Your task to perform on an android device: open wifi settings Image 0: 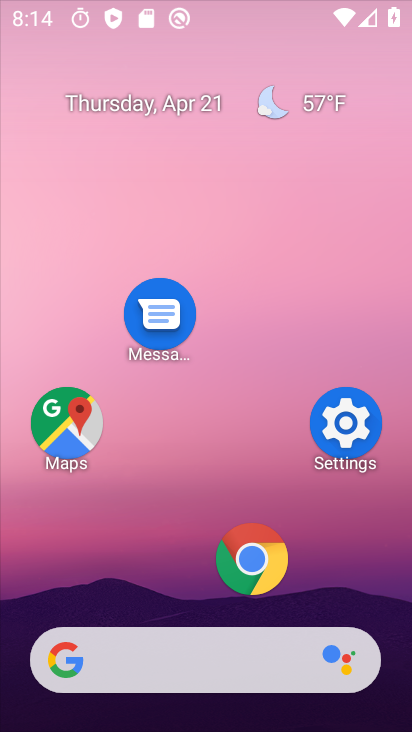
Step 0: drag from (203, 269) to (166, 8)
Your task to perform on an android device: open wifi settings Image 1: 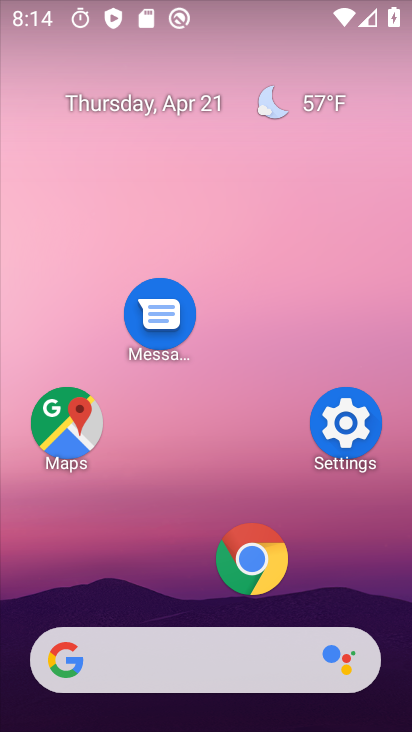
Step 1: drag from (337, 714) to (159, 75)
Your task to perform on an android device: open wifi settings Image 2: 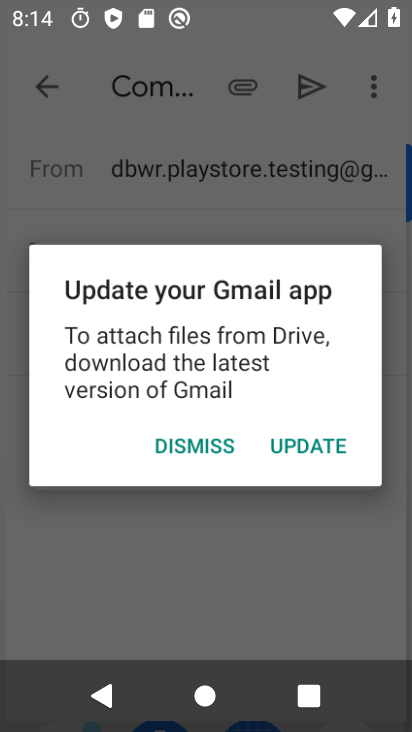
Step 2: click (341, 196)
Your task to perform on an android device: open wifi settings Image 3: 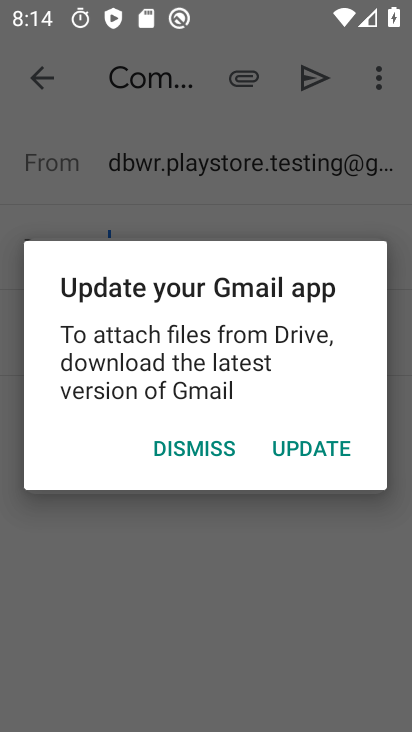
Step 3: click (175, 438)
Your task to perform on an android device: open wifi settings Image 4: 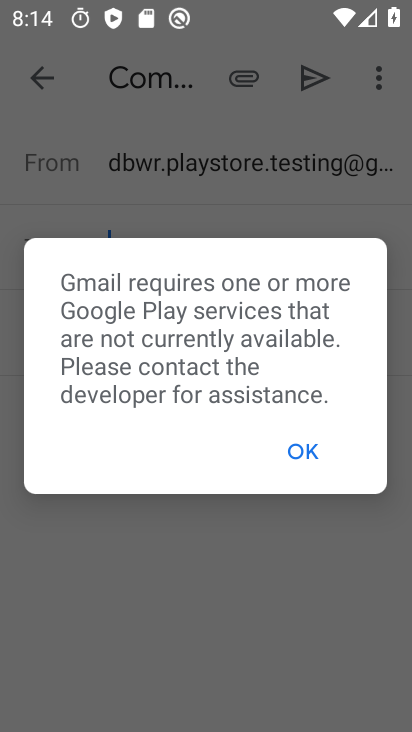
Step 4: click (293, 453)
Your task to perform on an android device: open wifi settings Image 5: 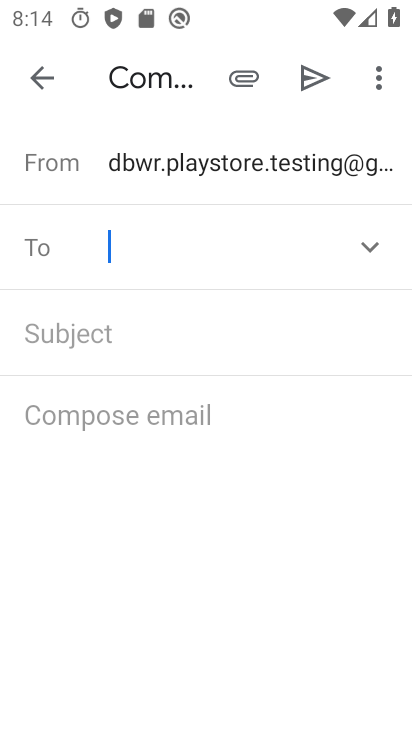
Step 5: click (41, 80)
Your task to perform on an android device: open wifi settings Image 6: 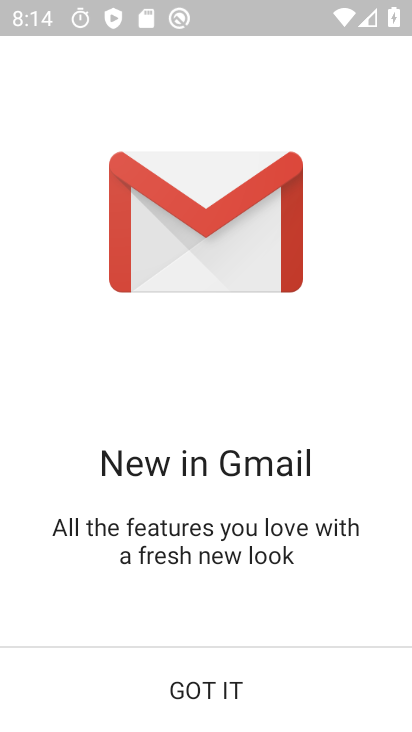
Step 6: click (213, 690)
Your task to perform on an android device: open wifi settings Image 7: 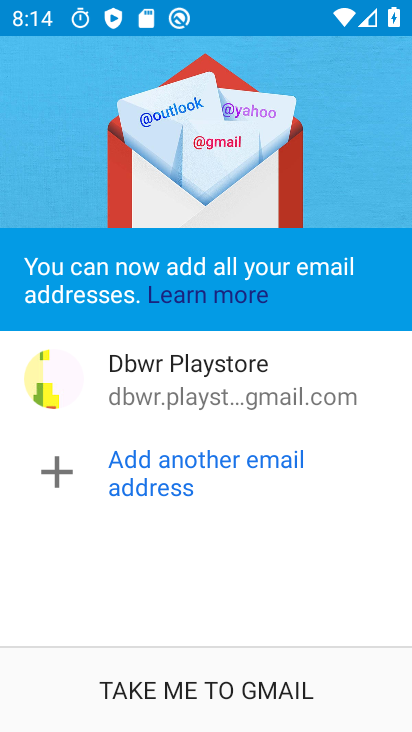
Step 7: click (216, 686)
Your task to perform on an android device: open wifi settings Image 8: 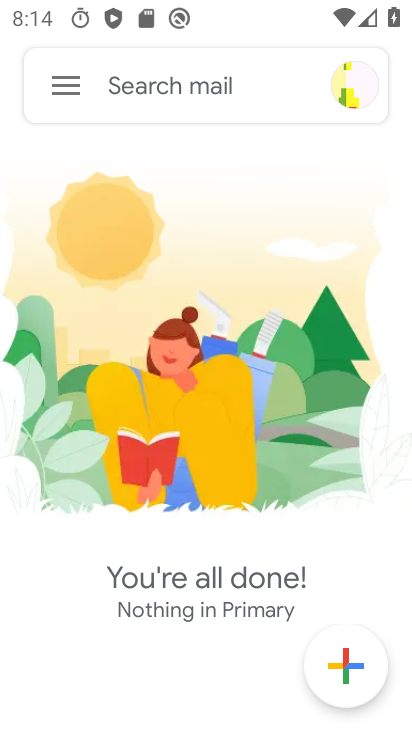
Step 8: press home button
Your task to perform on an android device: open wifi settings Image 9: 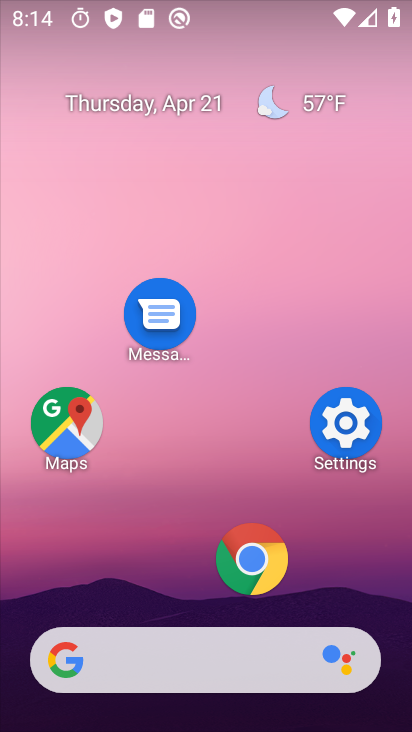
Step 9: drag from (238, 616) to (185, 220)
Your task to perform on an android device: open wifi settings Image 10: 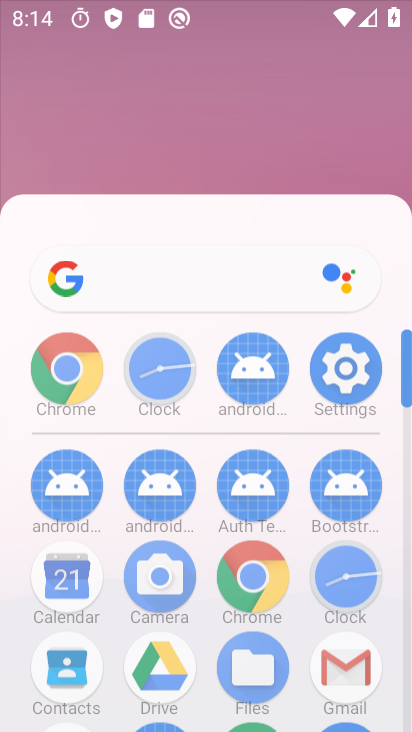
Step 10: drag from (205, 294) to (171, 55)
Your task to perform on an android device: open wifi settings Image 11: 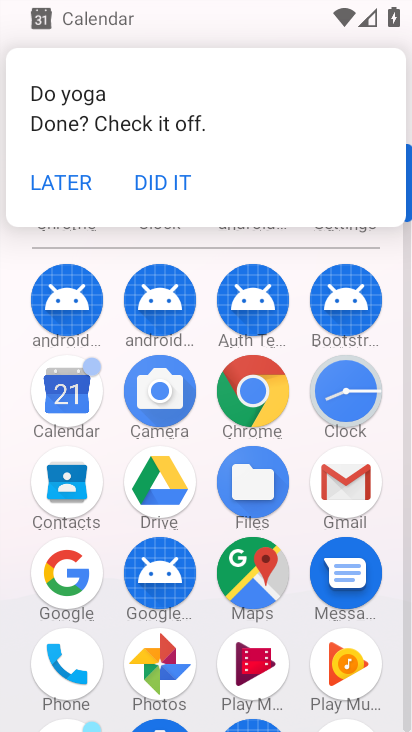
Step 11: click (398, 293)
Your task to perform on an android device: open wifi settings Image 12: 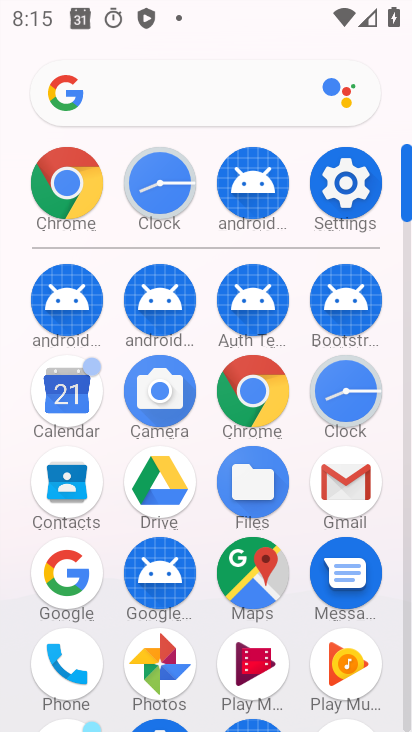
Step 12: click (342, 188)
Your task to perform on an android device: open wifi settings Image 13: 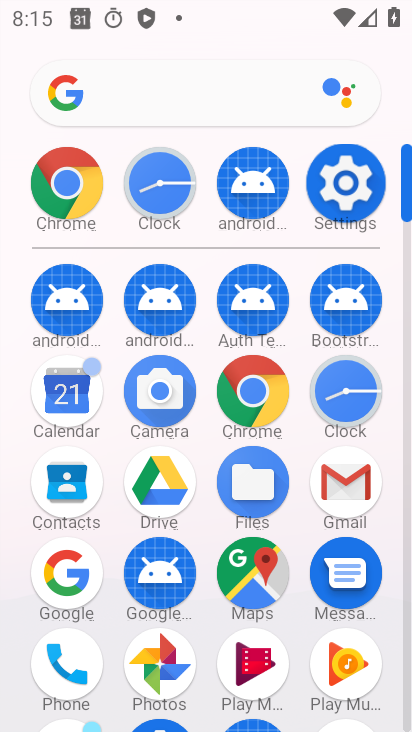
Step 13: click (344, 187)
Your task to perform on an android device: open wifi settings Image 14: 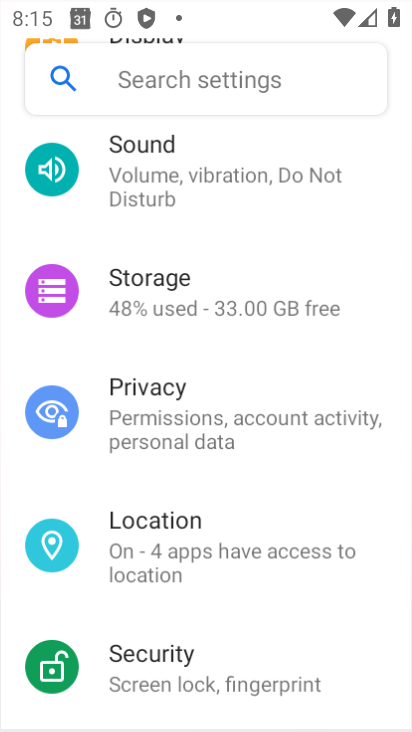
Step 14: click (339, 197)
Your task to perform on an android device: open wifi settings Image 15: 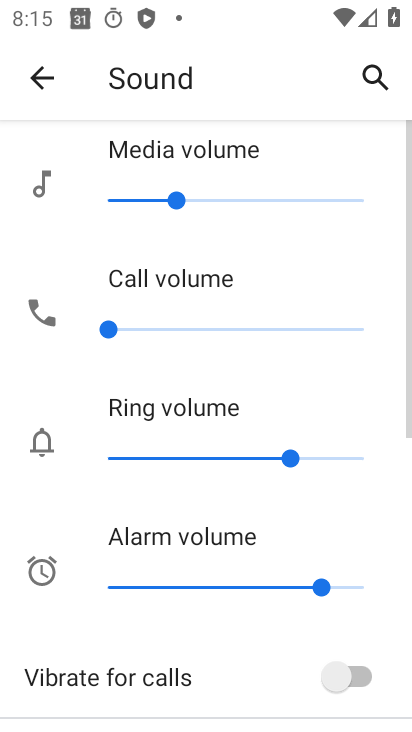
Step 15: click (38, 79)
Your task to perform on an android device: open wifi settings Image 16: 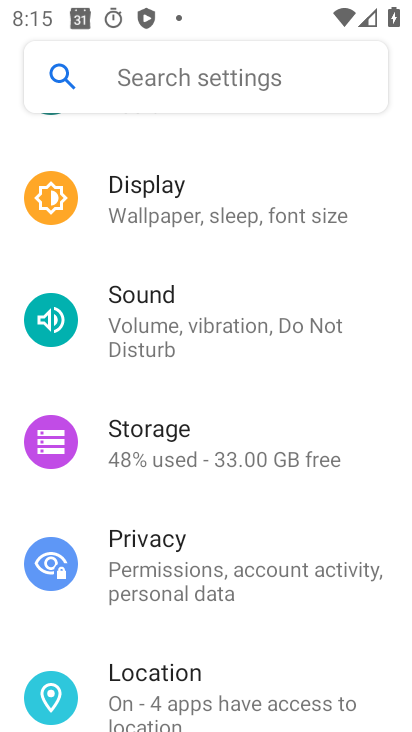
Step 16: drag from (191, 529) to (261, 521)
Your task to perform on an android device: open wifi settings Image 17: 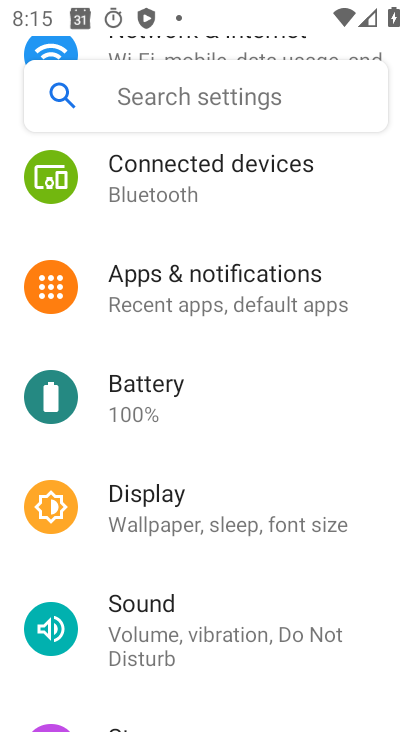
Step 17: drag from (293, 386) to (308, 721)
Your task to perform on an android device: open wifi settings Image 18: 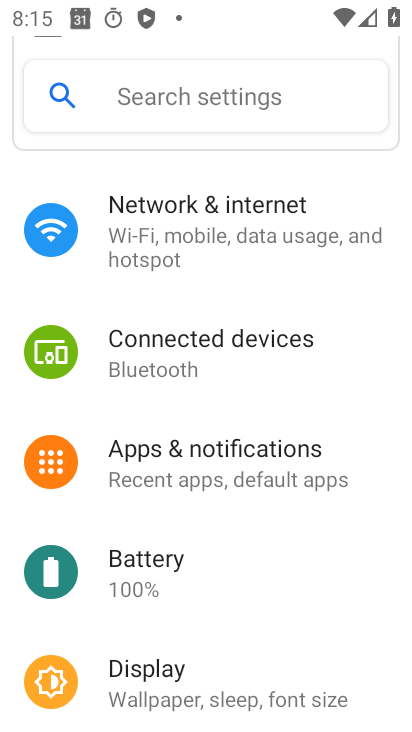
Step 18: click (226, 222)
Your task to perform on an android device: open wifi settings Image 19: 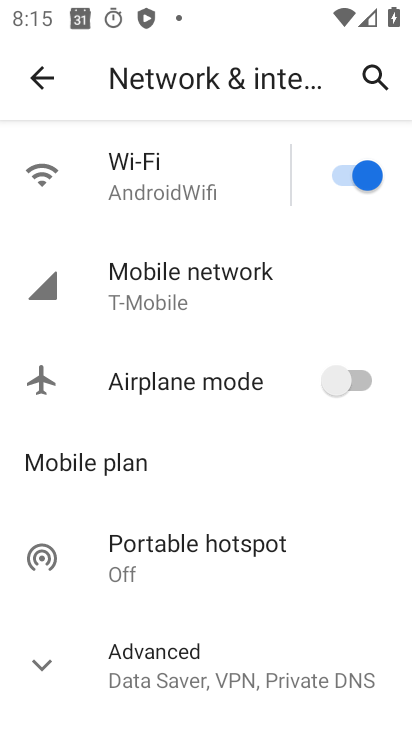
Step 19: task complete